Your task to perform on an android device: turn off data saver in the chrome app Image 0: 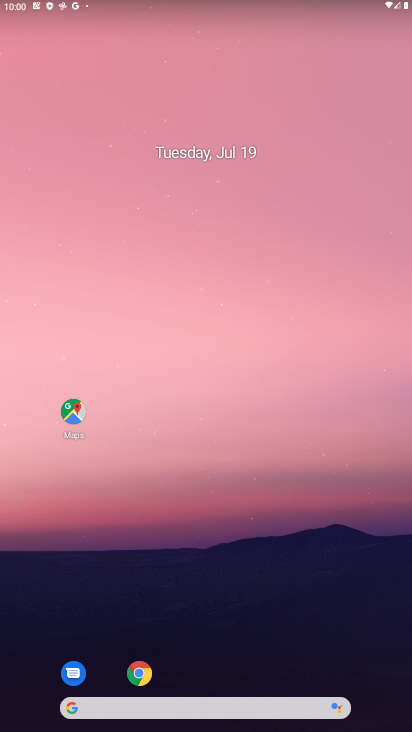
Step 0: click (156, 662)
Your task to perform on an android device: turn off data saver in the chrome app Image 1: 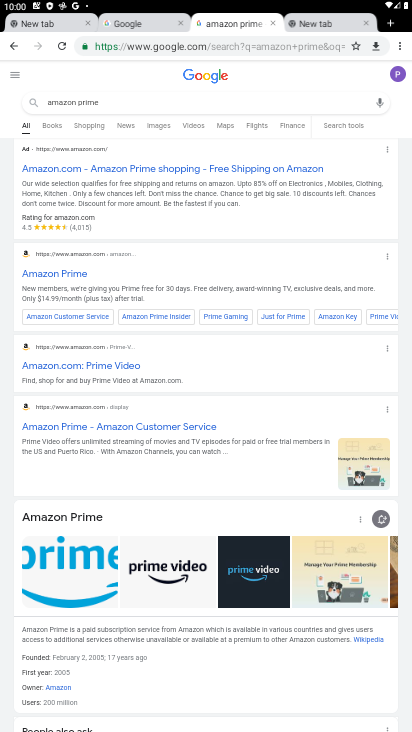
Step 1: click (393, 48)
Your task to perform on an android device: turn off data saver in the chrome app Image 2: 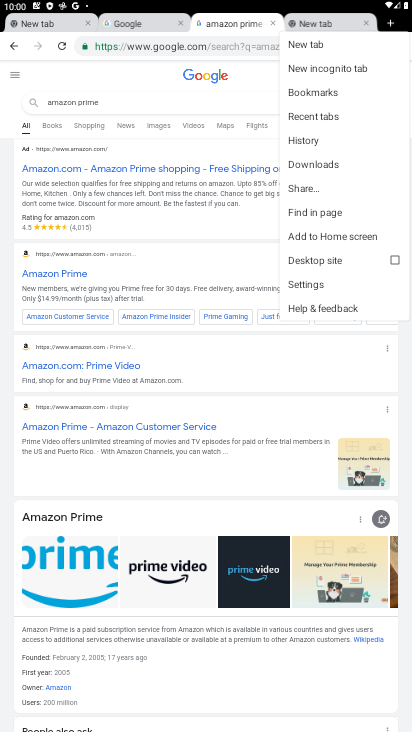
Step 2: click (321, 277)
Your task to perform on an android device: turn off data saver in the chrome app Image 3: 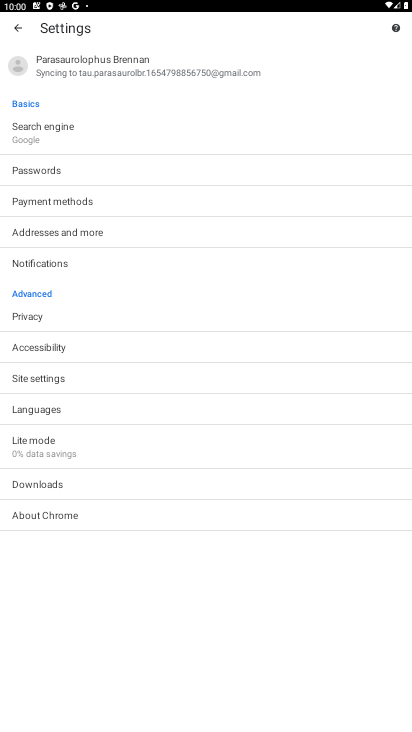
Step 3: click (88, 452)
Your task to perform on an android device: turn off data saver in the chrome app Image 4: 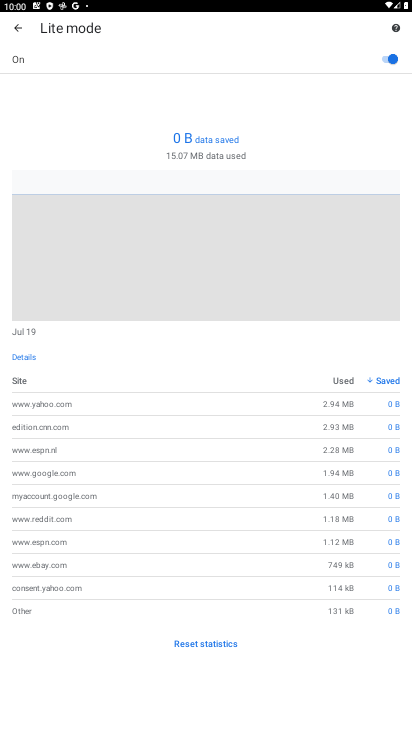
Step 4: click (377, 65)
Your task to perform on an android device: turn off data saver in the chrome app Image 5: 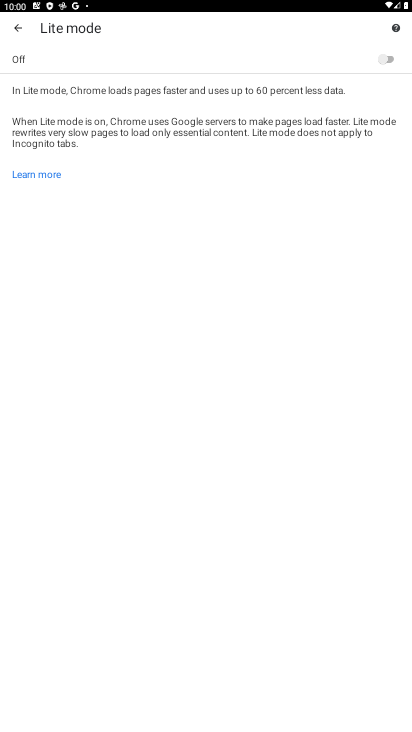
Step 5: task complete